Your task to perform on an android device: turn notification dots off Image 0: 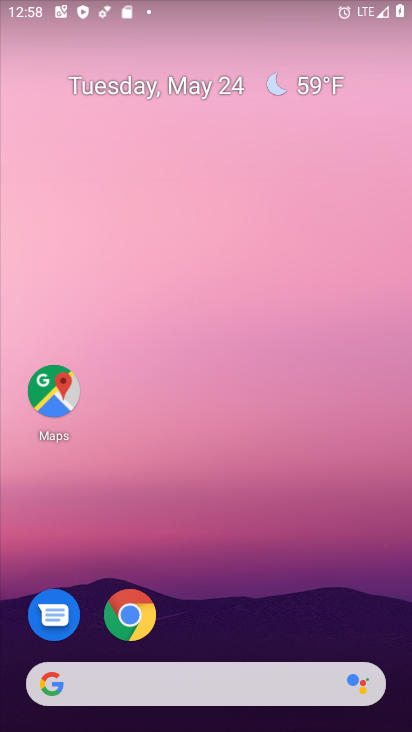
Step 0: drag from (284, 531) to (161, 5)
Your task to perform on an android device: turn notification dots off Image 1: 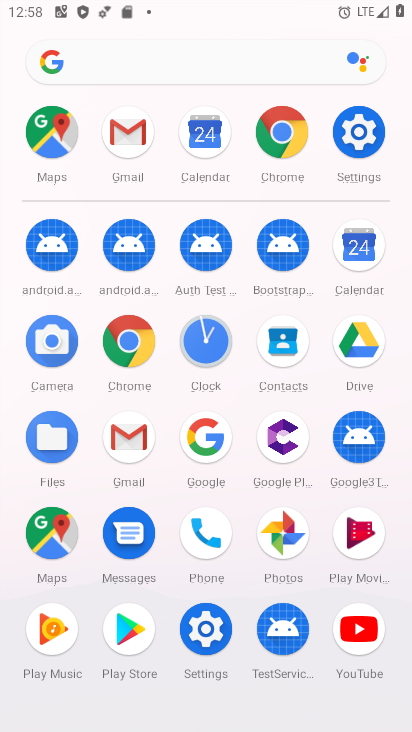
Step 1: drag from (12, 514) to (13, 220)
Your task to perform on an android device: turn notification dots off Image 2: 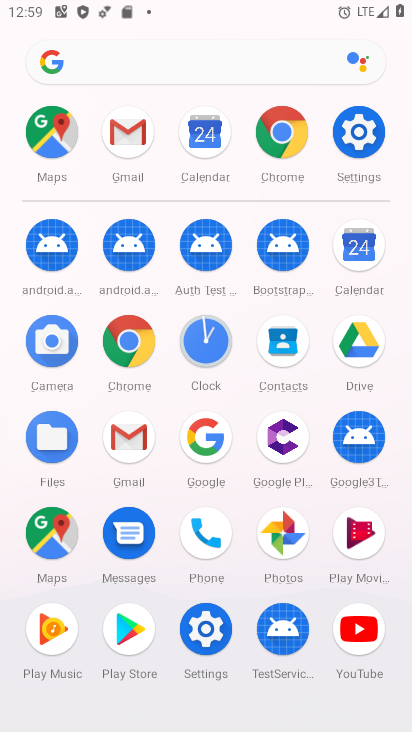
Step 2: drag from (5, 468) to (11, 117)
Your task to perform on an android device: turn notification dots off Image 3: 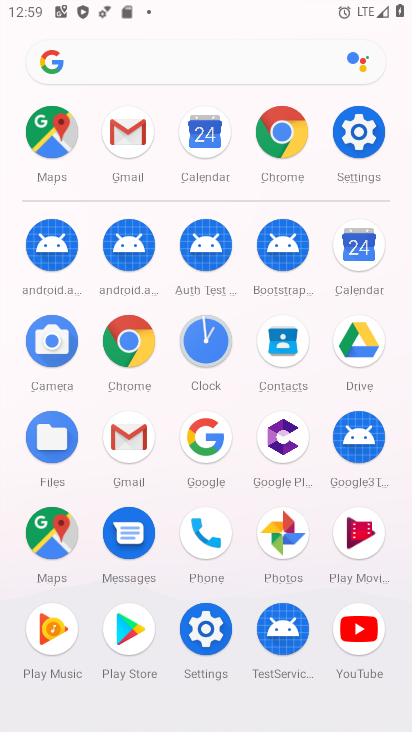
Step 3: drag from (4, 522) to (3, 251)
Your task to perform on an android device: turn notification dots off Image 4: 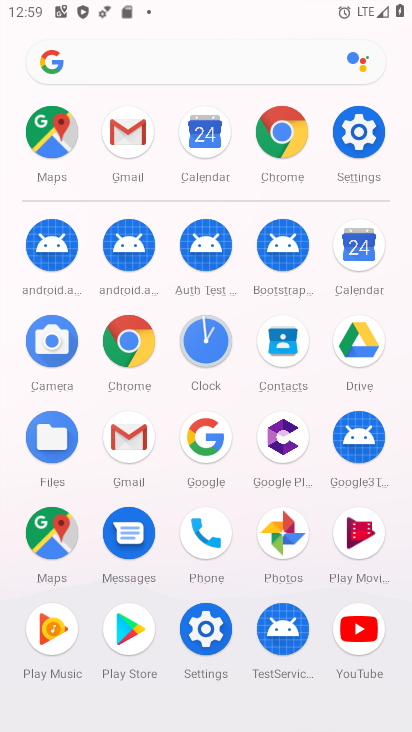
Step 4: click (203, 626)
Your task to perform on an android device: turn notification dots off Image 5: 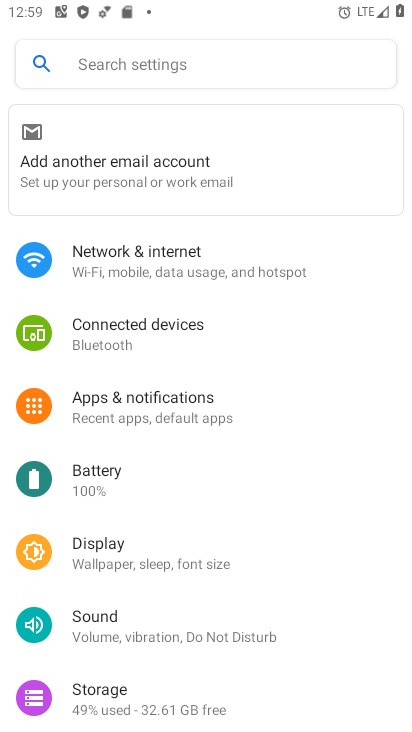
Step 5: click (169, 393)
Your task to perform on an android device: turn notification dots off Image 6: 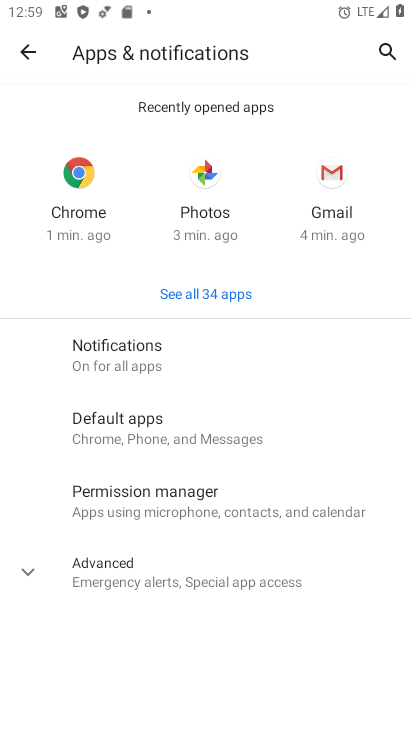
Step 6: click (191, 359)
Your task to perform on an android device: turn notification dots off Image 7: 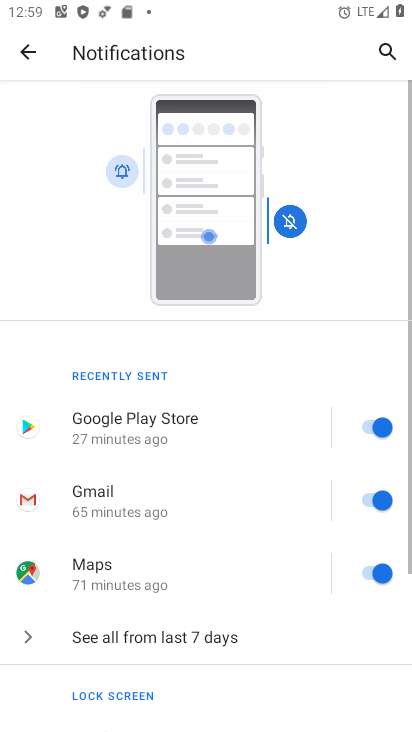
Step 7: drag from (250, 602) to (247, 166)
Your task to perform on an android device: turn notification dots off Image 8: 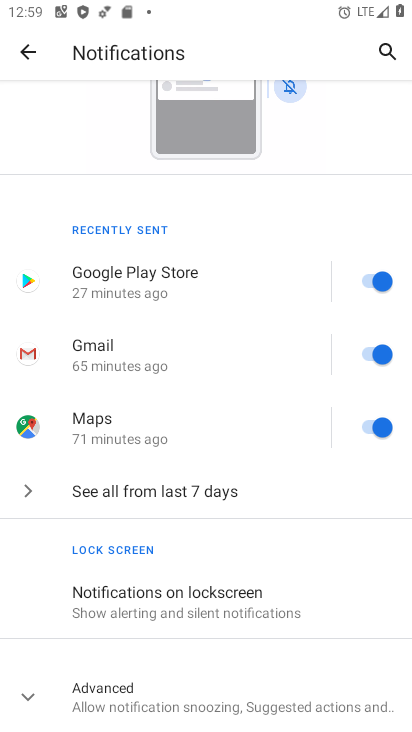
Step 8: click (129, 677)
Your task to perform on an android device: turn notification dots off Image 9: 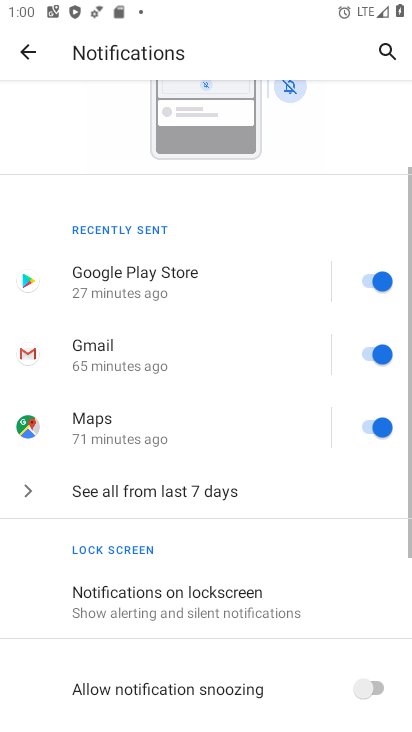
Step 9: drag from (278, 582) to (274, 254)
Your task to perform on an android device: turn notification dots off Image 10: 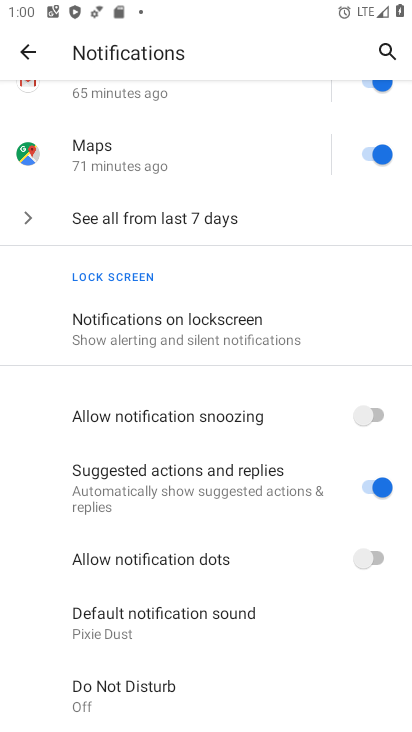
Step 10: click (214, 305)
Your task to perform on an android device: turn notification dots off Image 11: 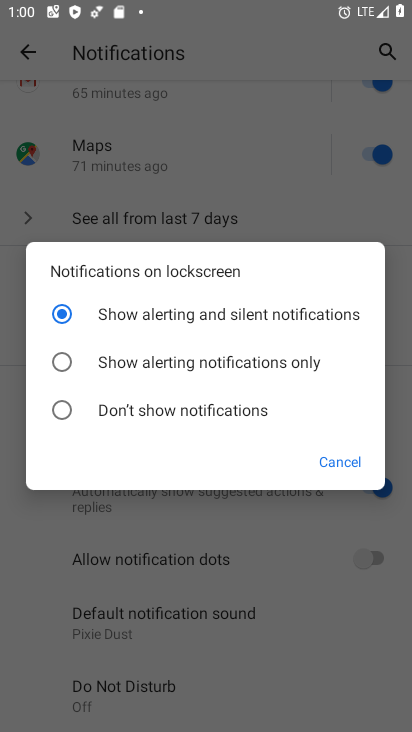
Step 11: click (190, 318)
Your task to perform on an android device: turn notification dots off Image 12: 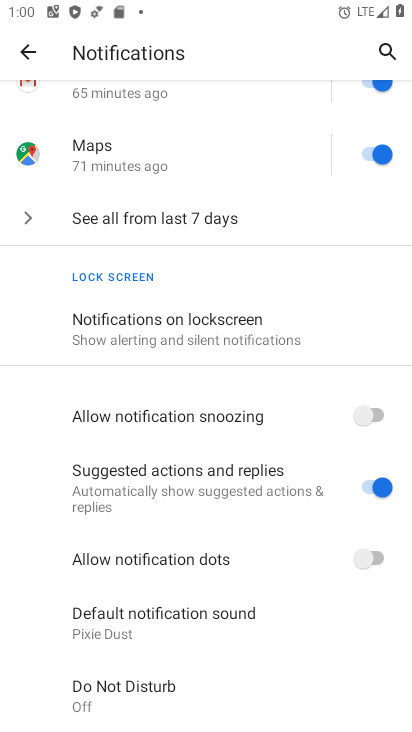
Step 12: task complete